Your task to perform on an android device: Open Youtube and go to the subscriptions tab Image 0: 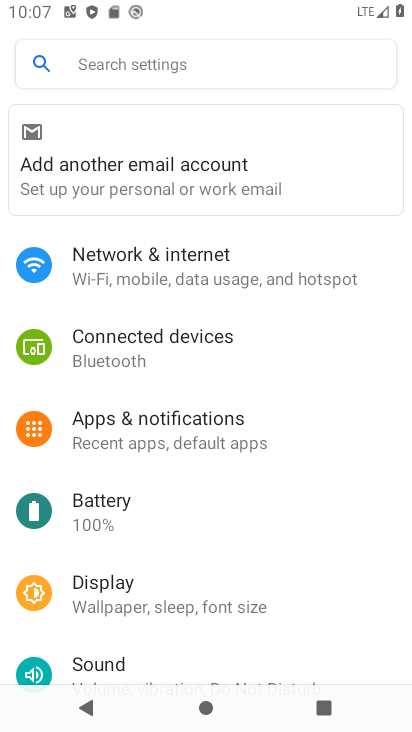
Step 0: press home button
Your task to perform on an android device: Open Youtube and go to the subscriptions tab Image 1: 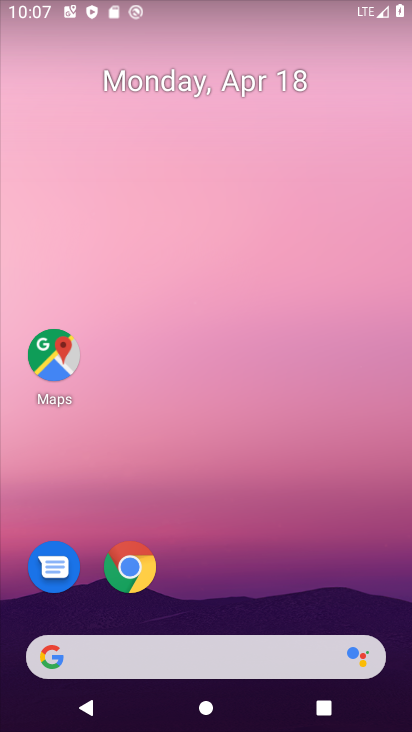
Step 1: drag from (272, 561) to (280, 139)
Your task to perform on an android device: Open Youtube and go to the subscriptions tab Image 2: 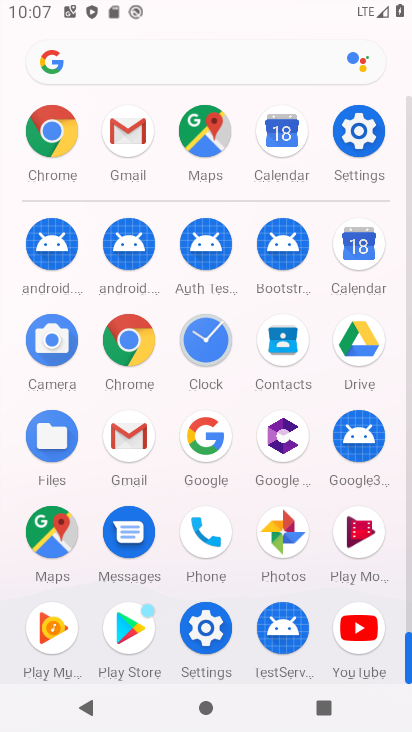
Step 2: click (365, 635)
Your task to perform on an android device: Open Youtube and go to the subscriptions tab Image 3: 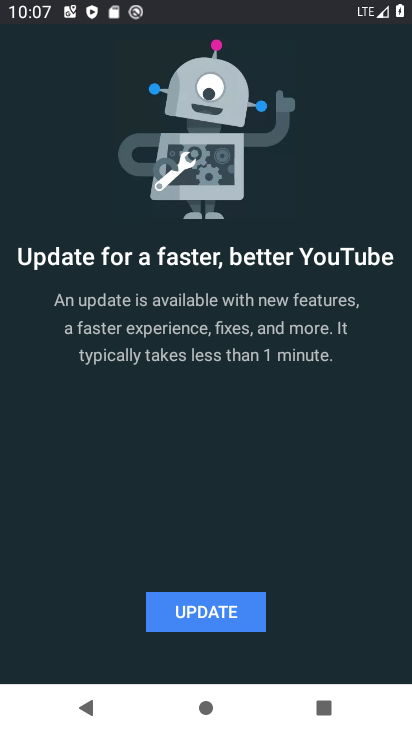
Step 3: click (243, 615)
Your task to perform on an android device: Open Youtube and go to the subscriptions tab Image 4: 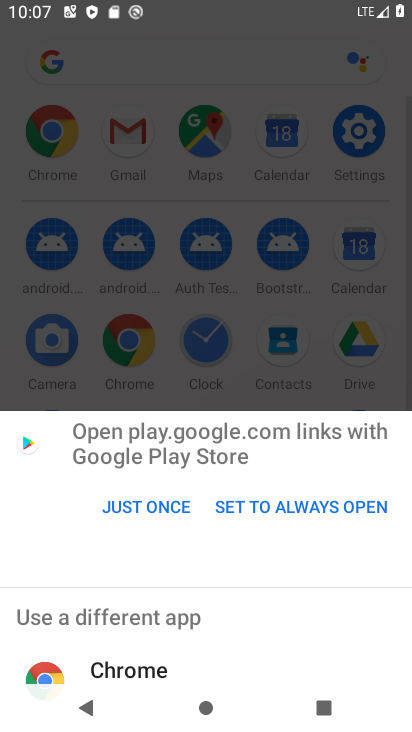
Step 4: drag from (263, 629) to (262, 403)
Your task to perform on an android device: Open Youtube and go to the subscriptions tab Image 5: 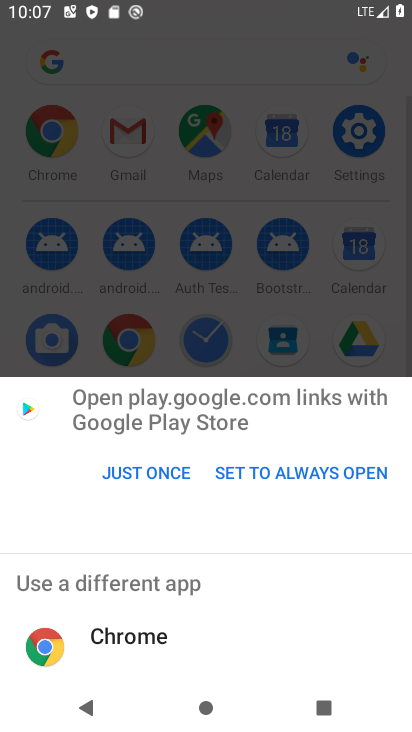
Step 5: click (154, 460)
Your task to perform on an android device: Open Youtube and go to the subscriptions tab Image 6: 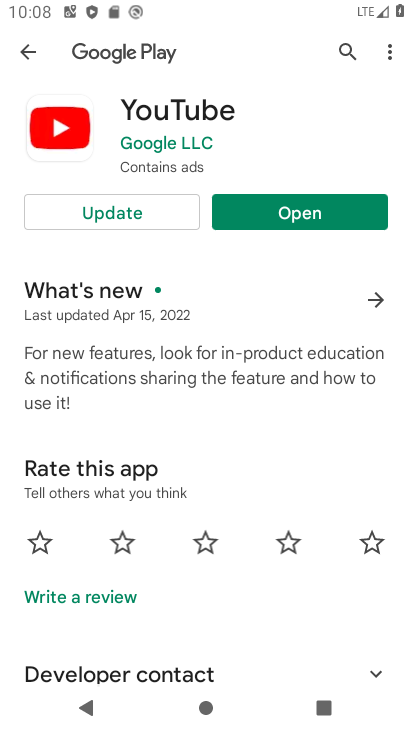
Step 6: click (283, 225)
Your task to perform on an android device: Open Youtube and go to the subscriptions tab Image 7: 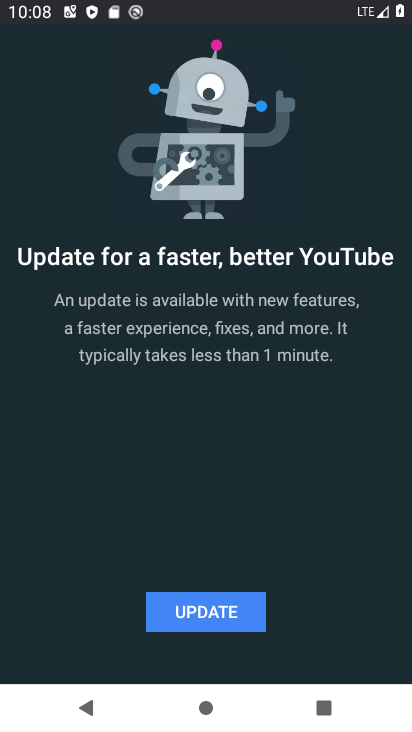
Step 7: click (221, 609)
Your task to perform on an android device: Open Youtube and go to the subscriptions tab Image 8: 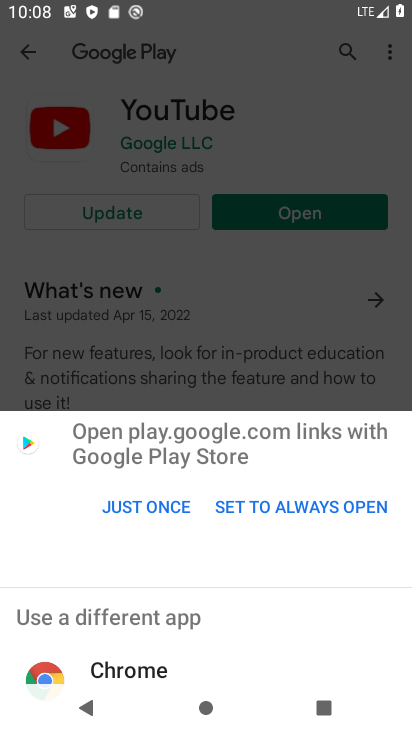
Step 8: click (181, 504)
Your task to perform on an android device: Open Youtube and go to the subscriptions tab Image 9: 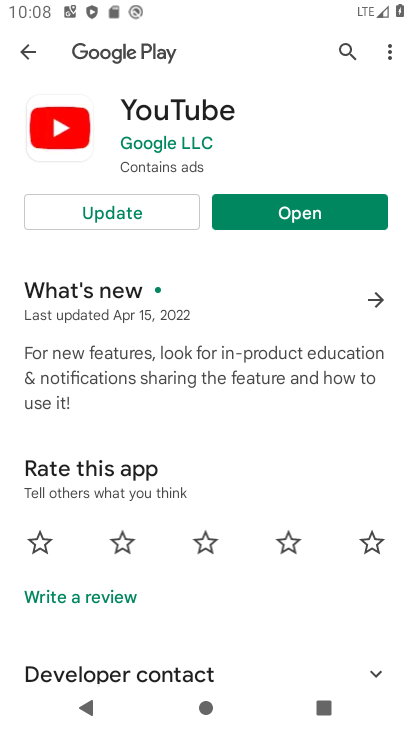
Step 9: click (125, 221)
Your task to perform on an android device: Open Youtube and go to the subscriptions tab Image 10: 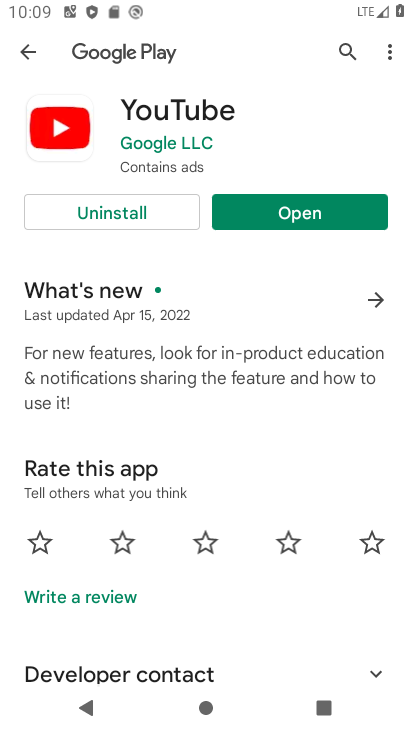
Step 10: click (242, 217)
Your task to perform on an android device: Open Youtube and go to the subscriptions tab Image 11: 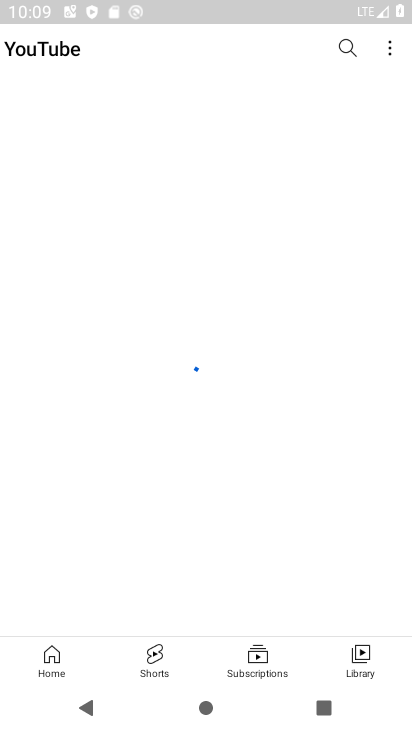
Step 11: click (266, 658)
Your task to perform on an android device: Open Youtube and go to the subscriptions tab Image 12: 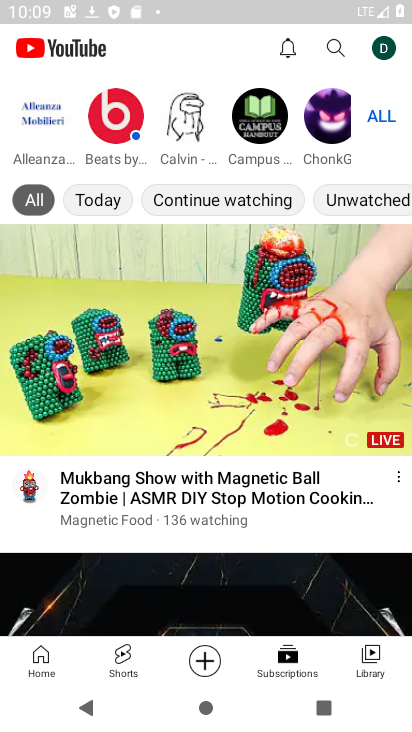
Step 12: task complete